Your task to perform on an android device: choose inbox layout in the gmail app Image 0: 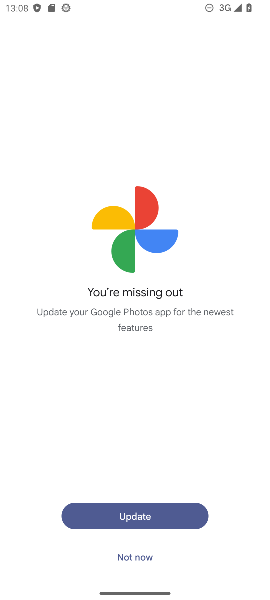
Step 0: press home button
Your task to perform on an android device: choose inbox layout in the gmail app Image 1: 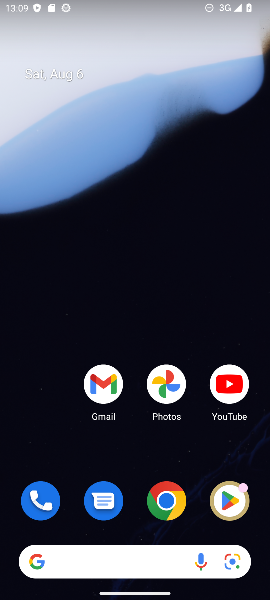
Step 1: click (96, 382)
Your task to perform on an android device: choose inbox layout in the gmail app Image 2: 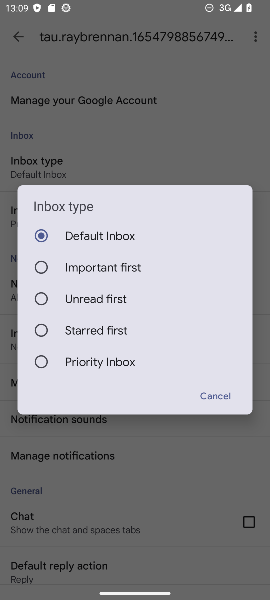
Step 2: click (205, 402)
Your task to perform on an android device: choose inbox layout in the gmail app Image 3: 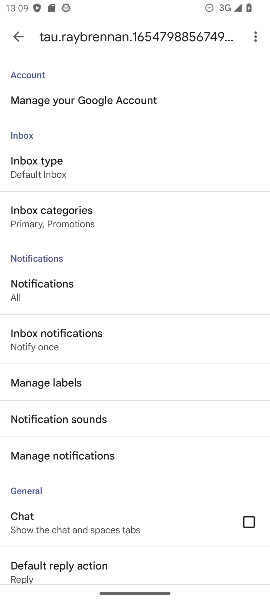
Step 3: click (25, 175)
Your task to perform on an android device: choose inbox layout in the gmail app Image 4: 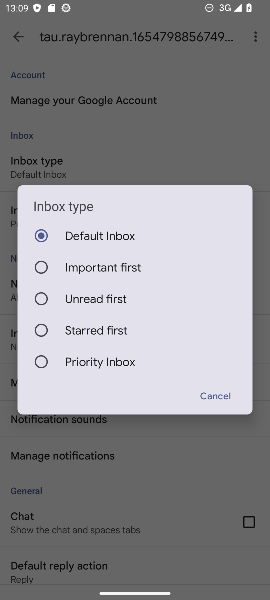
Step 4: click (40, 369)
Your task to perform on an android device: choose inbox layout in the gmail app Image 5: 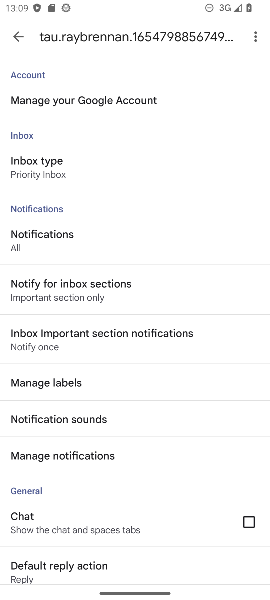
Step 5: task complete